Your task to perform on an android device: turn off picture-in-picture Image 0: 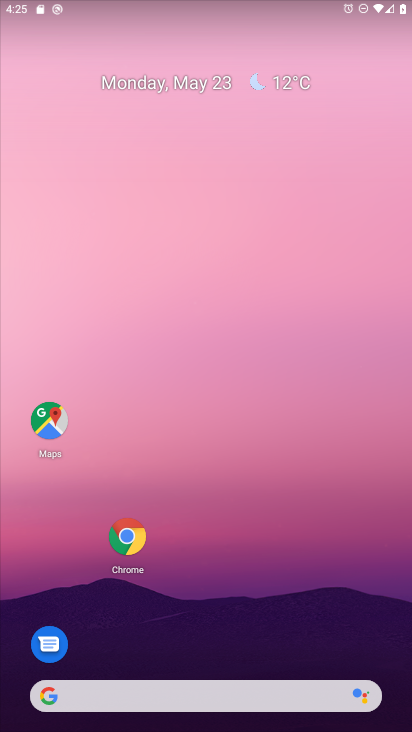
Step 0: click (128, 538)
Your task to perform on an android device: turn off picture-in-picture Image 1: 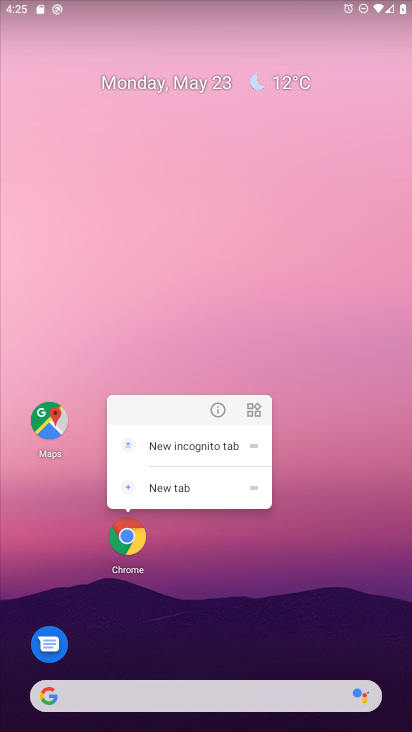
Step 1: click (222, 411)
Your task to perform on an android device: turn off picture-in-picture Image 2: 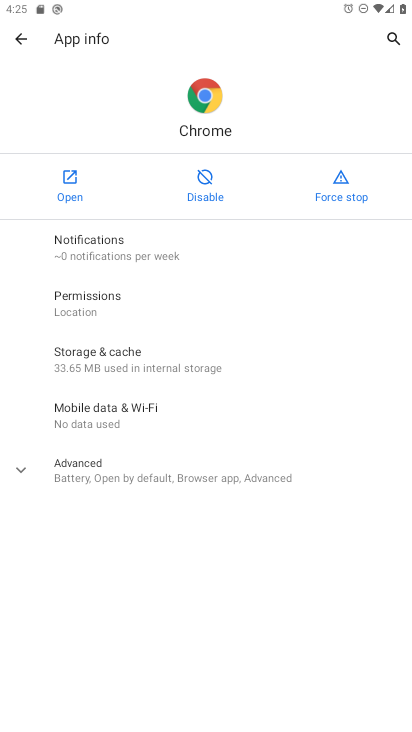
Step 2: click (191, 491)
Your task to perform on an android device: turn off picture-in-picture Image 3: 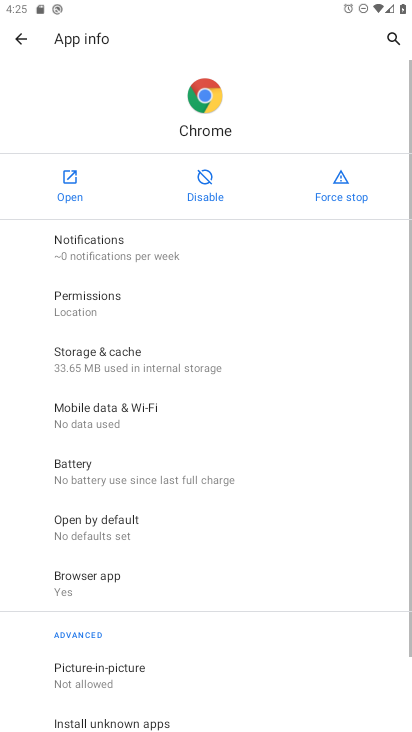
Step 3: drag from (221, 684) to (231, 250)
Your task to perform on an android device: turn off picture-in-picture Image 4: 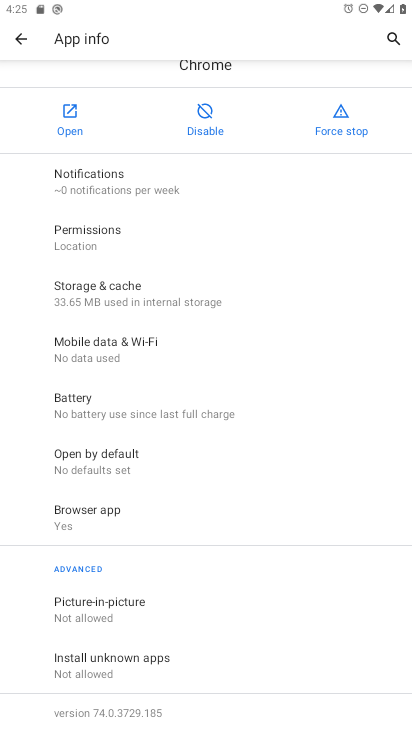
Step 4: click (145, 610)
Your task to perform on an android device: turn off picture-in-picture Image 5: 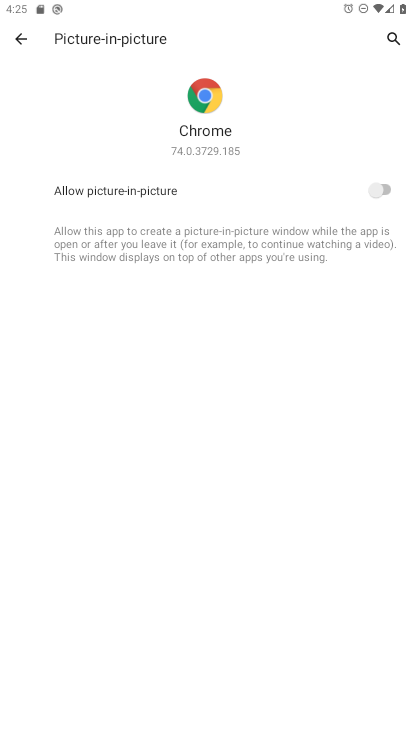
Step 5: task complete